Your task to perform on an android device: open a bookmark in the chrome app Image 0: 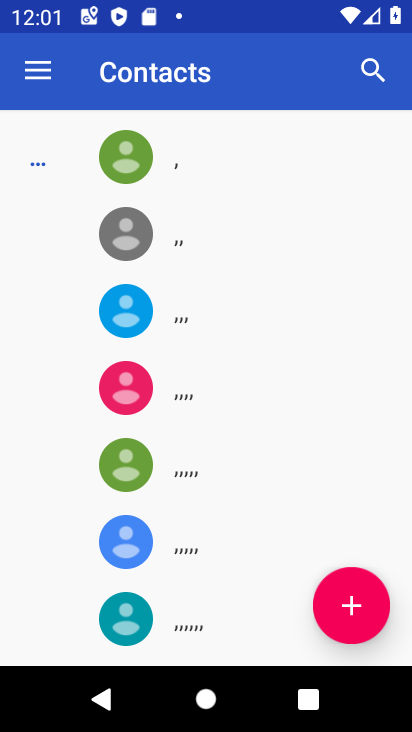
Step 0: press home button
Your task to perform on an android device: open a bookmark in the chrome app Image 1: 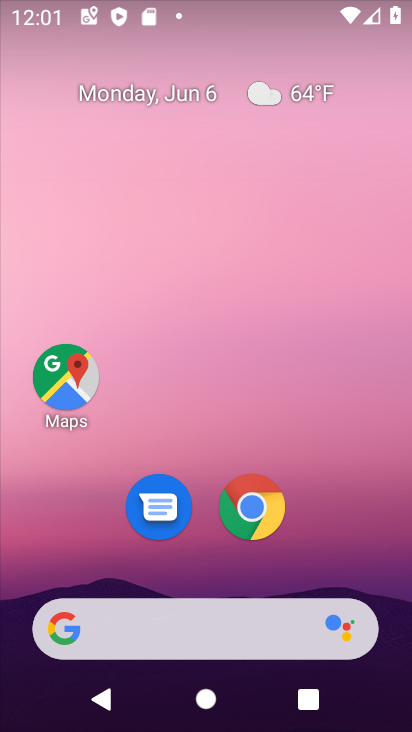
Step 1: click (254, 512)
Your task to perform on an android device: open a bookmark in the chrome app Image 2: 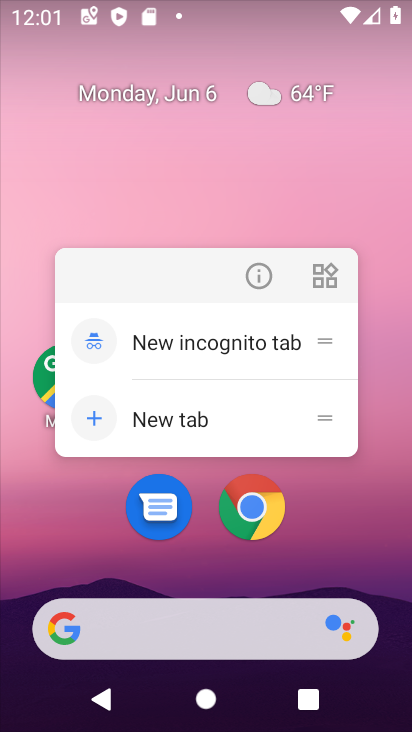
Step 2: click (254, 512)
Your task to perform on an android device: open a bookmark in the chrome app Image 3: 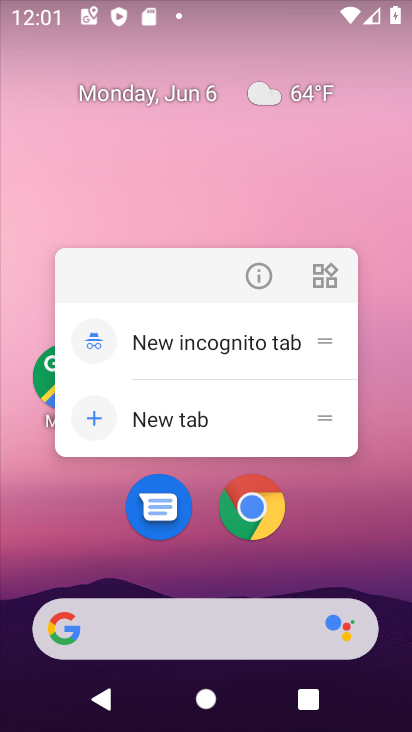
Step 3: click (296, 533)
Your task to perform on an android device: open a bookmark in the chrome app Image 4: 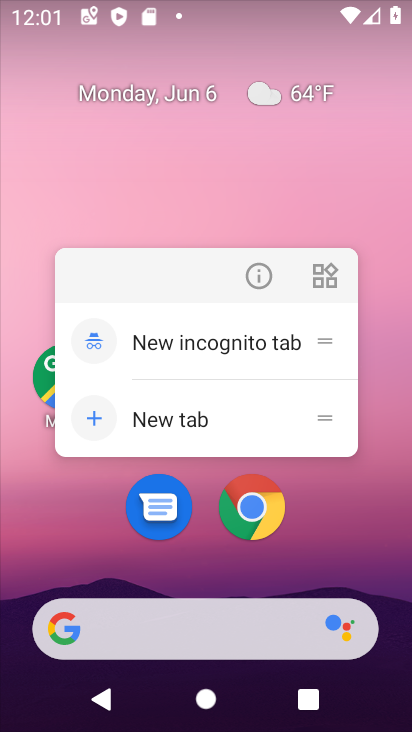
Step 4: drag from (338, 535) to (360, 258)
Your task to perform on an android device: open a bookmark in the chrome app Image 5: 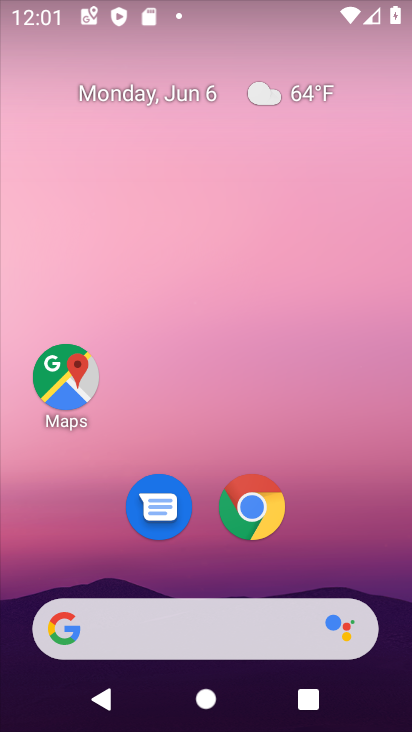
Step 5: drag from (320, 466) to (332, 151)
Your task to perform on an android device: open a bookmark in the chrome app Image 6: 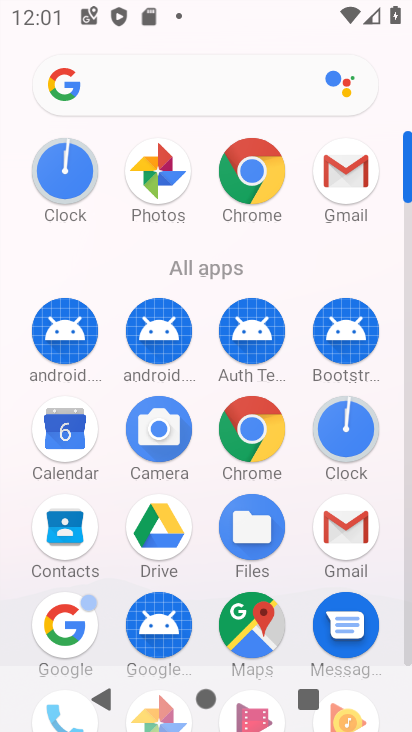
Step 6: click (249, 428)
Your task to perform on an android device: open a bookmark in the chrome app Image 7: 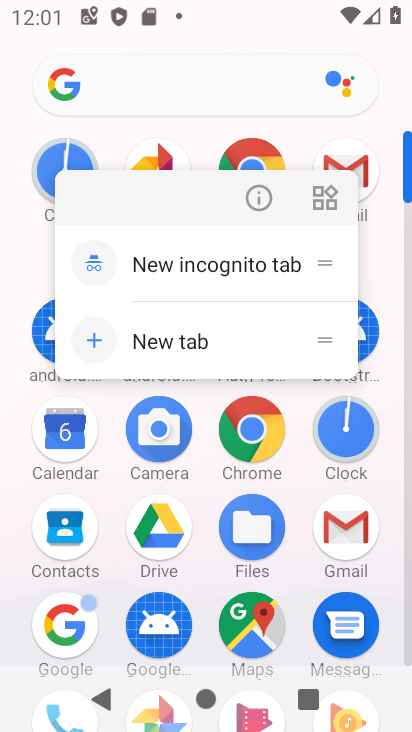
Step 7: click (242, 424)
Your task to perform on an android device: open a bookmark in the chrome app Image 8: 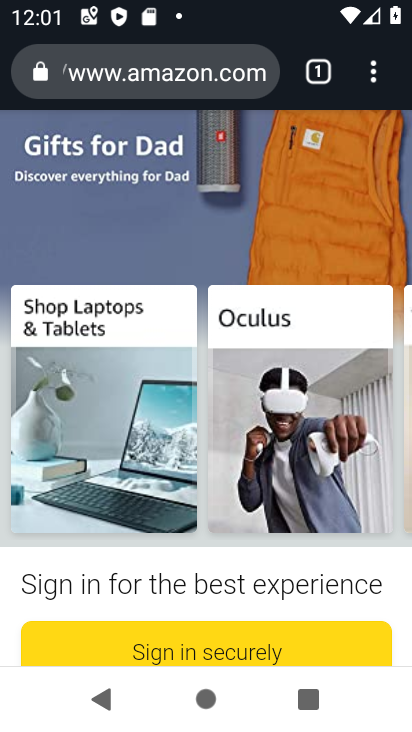
Step 8: drag from (384, 59) to (241, 277)
Your task to perform on an android device: open a bookmark in the chrome app Image 9: 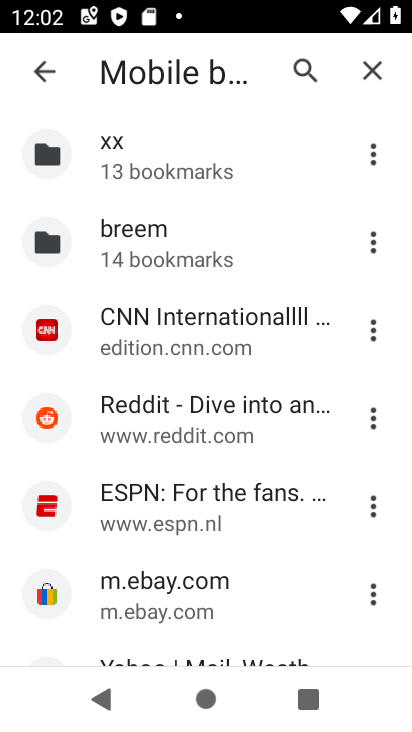
Step 9: click (222, 337)
Your task to perform on an android device: open a bookmark in the chrome app Image 10: 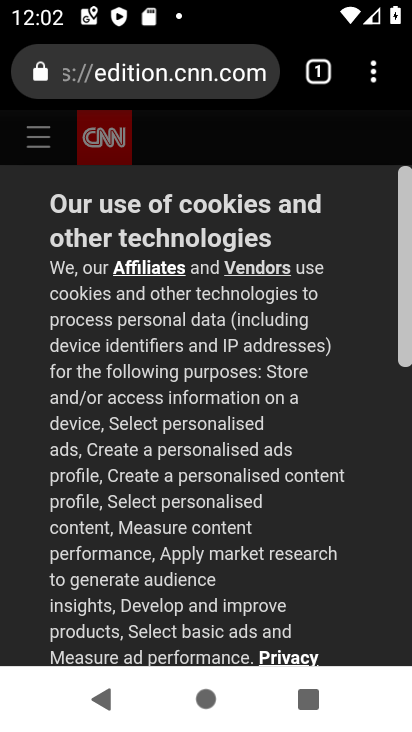
Step 10: task complete